Your task to perform on an android device: see tabs open on other devices in the chrome app Image 0: 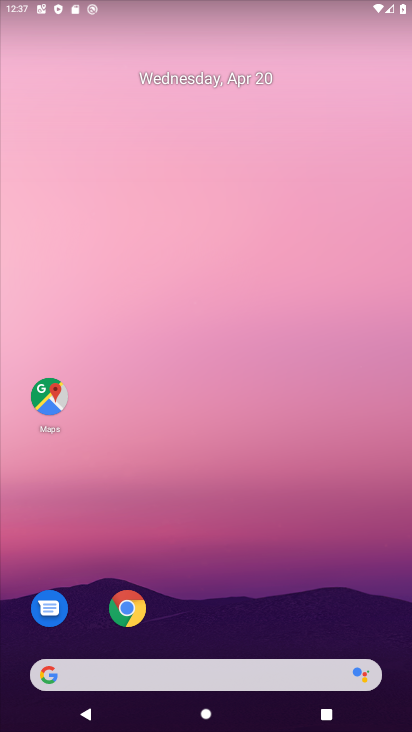
Step 0: click (136, 600)
Your task to perform on an android device: see tabs open on other devices in the chrome app Image 1: 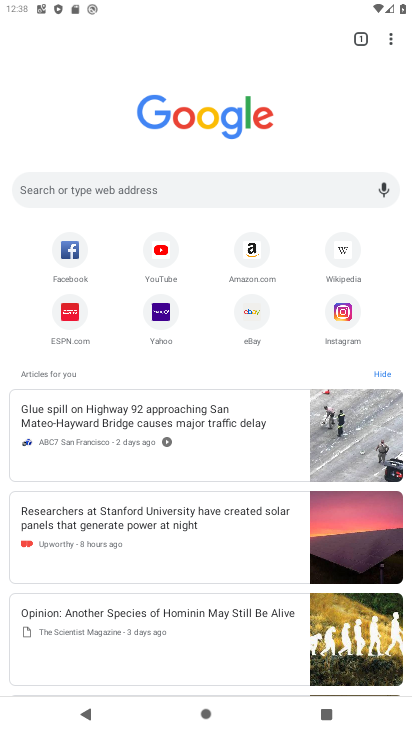
Step 1: click (393, 35)
Your task to perform on an android device: see tabs open on other devices in the chrome app Image 2: 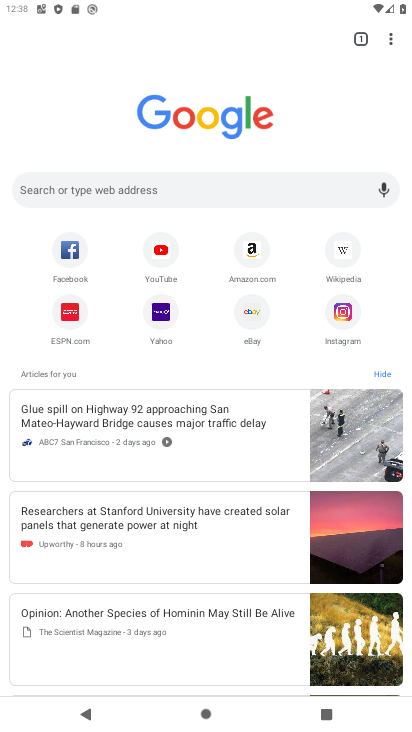
Step 2: click (383, 41)
Your task to perform on an android device: see tabs open on other devices in the chrome app Image 3: 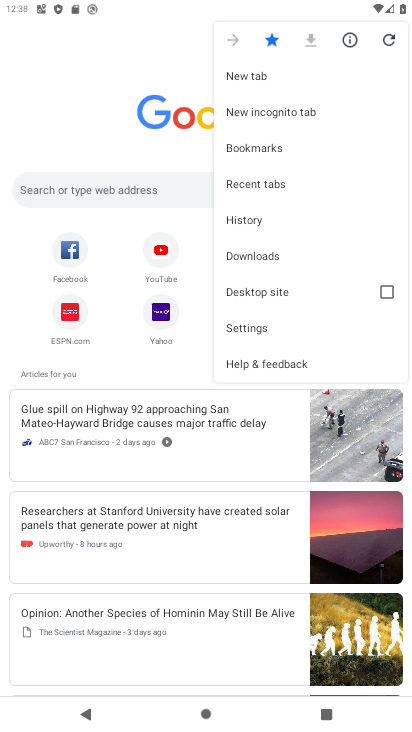
Step 3: click (262, 180)
Your task to perform on an android device: see tabs open on other devices in the chrome app Image 4: 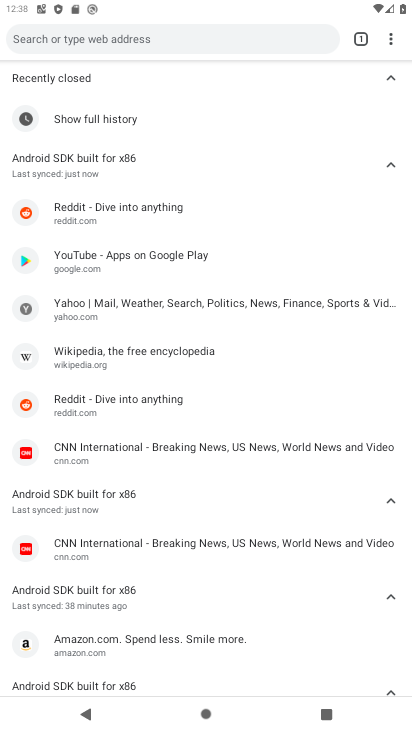
Step 4: task complete